Your task to perform on an android device: Search for sushi restaurants on Maps Image 0: 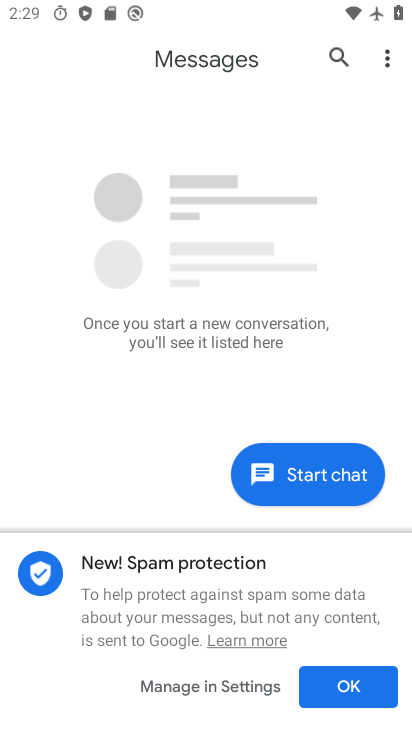
Step 0: press home button
Your task to perform on an android device: Search for sushi restaurants on Maps Image 1: 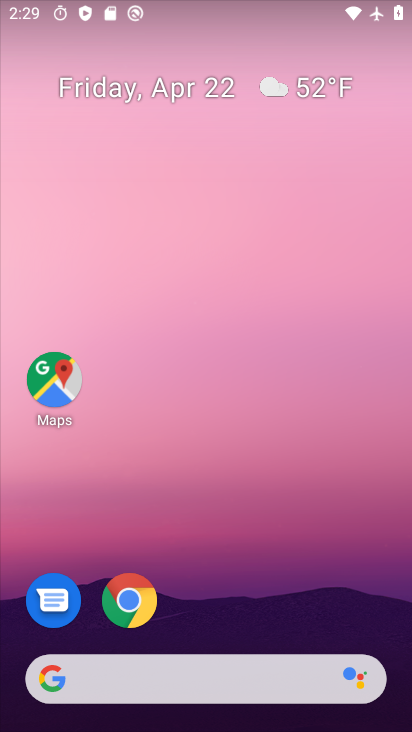
Step 1: drag from (239, 718) to (243, 157)
Your task to perform on an android device: Search for sushi restaurants on Maps Image 2: 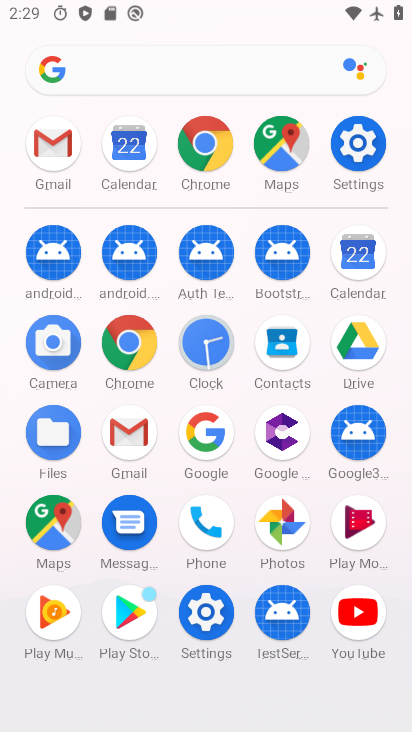
Step 2: click (49, 521)
Your task to perform on an android device: Search for sushi restaurants on Maps Image 3: 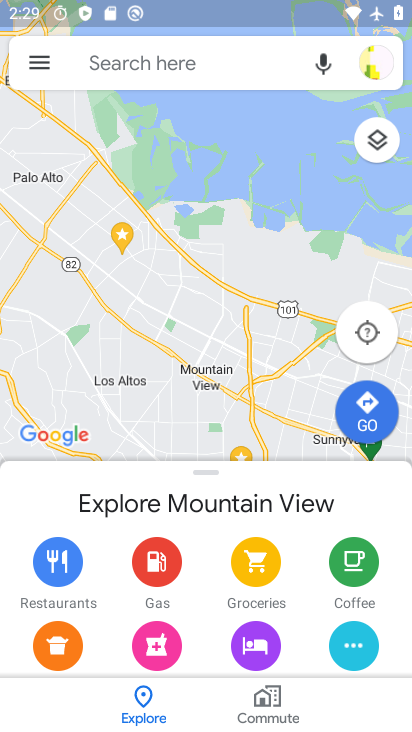
Step 3: click (211, 71)
Your task to perform on an android device: Search for sushi restaurants on Maps Image 4: 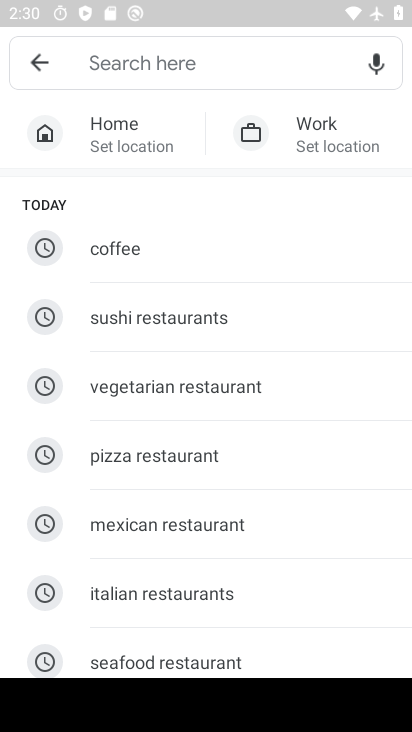
Step 4: type "sushi restaurants"
Your task to perform on an android device: Search for sushi restaurants on Maps Image 5: 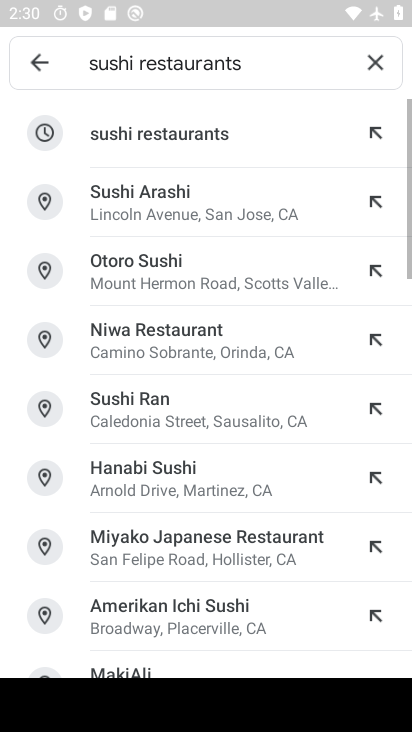
Step 5: click (159, 135)
Your task to perform on an android device: Search for sushi restaurants on Maps Image 6: 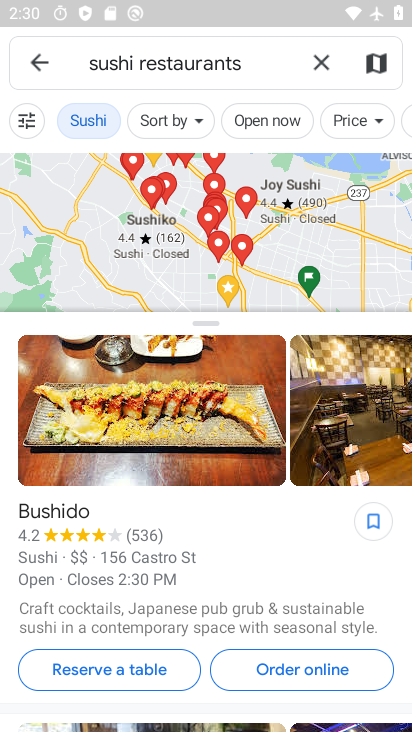
Step 6: task complete